Your task to perform on an android device: Show me recent news Image 0: 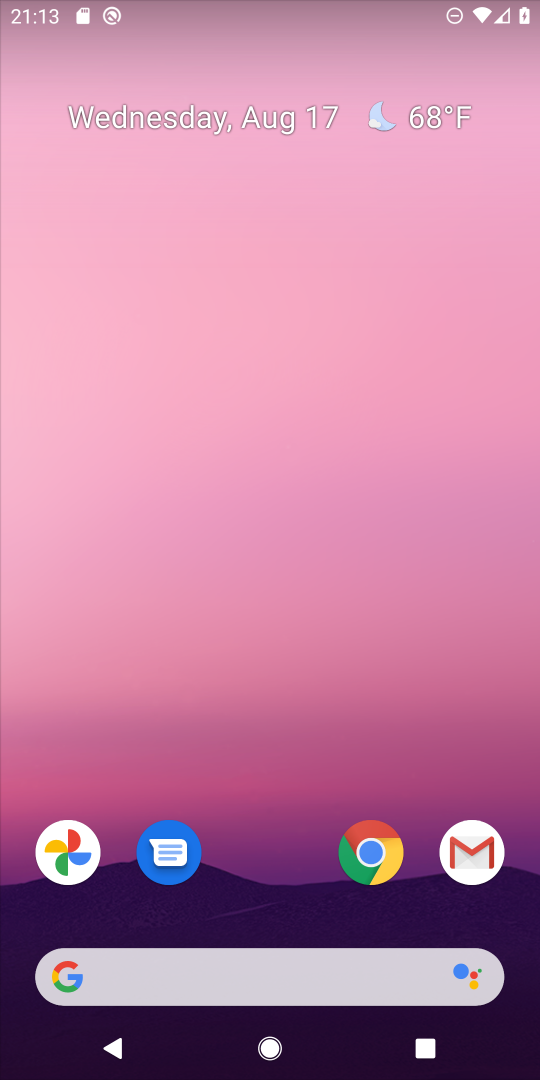
Step 0: click (61, 969)
Your task to perform on an android device: Show me recent news Image 1: 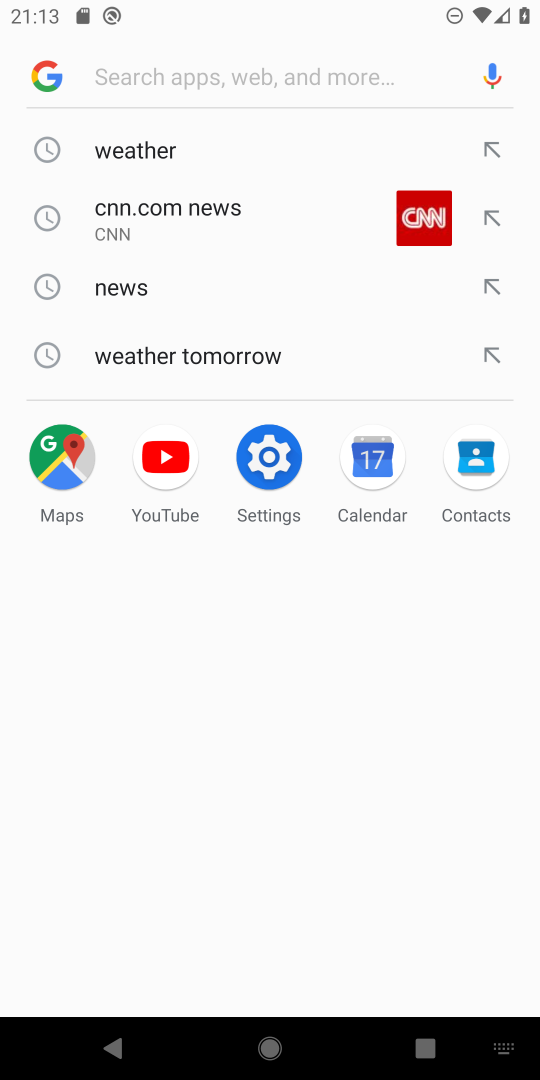
Step 1: click (43, 65)
Your task to perform on an android device: Show me recent news Image 2: 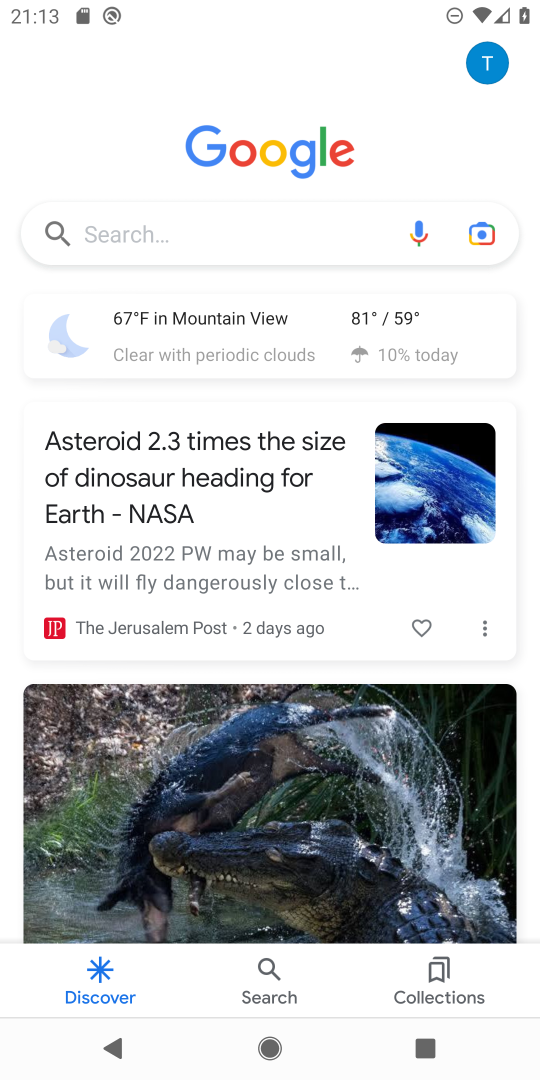
Step 2: task complete